Your task to perform on an android device: open wifi settings Image 0: 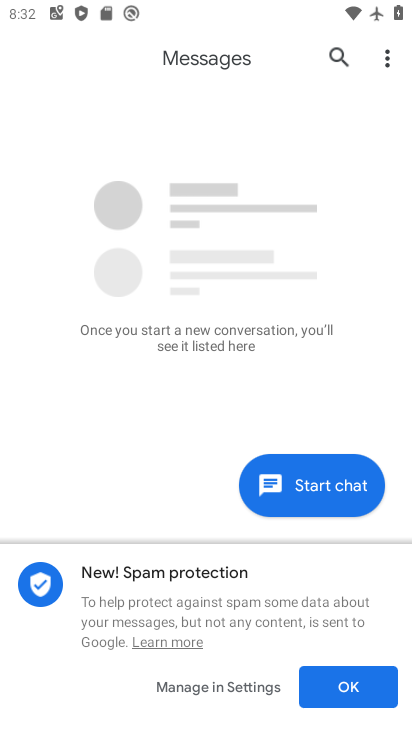
Step 0: press home button
Your task to perform on an android device: open wifi settings Image 1: 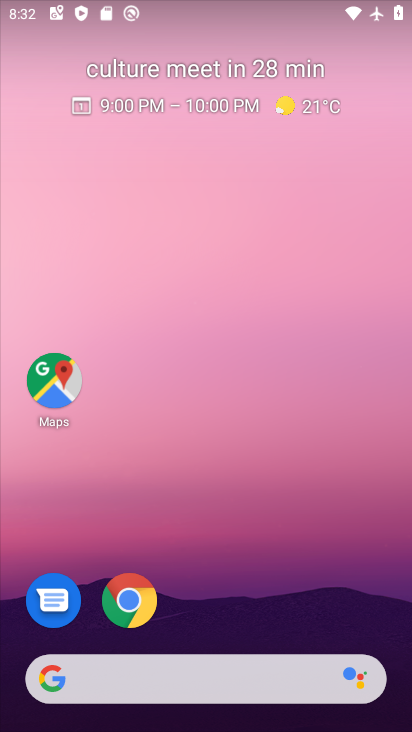
Step 1: drag from (328, 603) to (302, 89)
Your task to perform on an android device: open wifi settings Image 2: 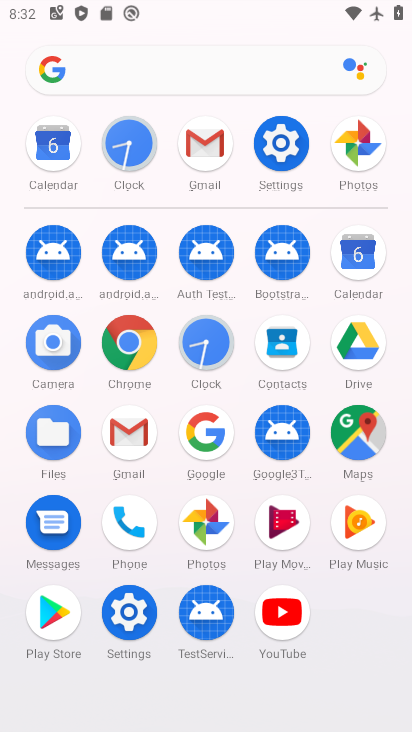
Step 2: click (127, 611)
Your task to perform on an android device: open wifi settings Image 3: 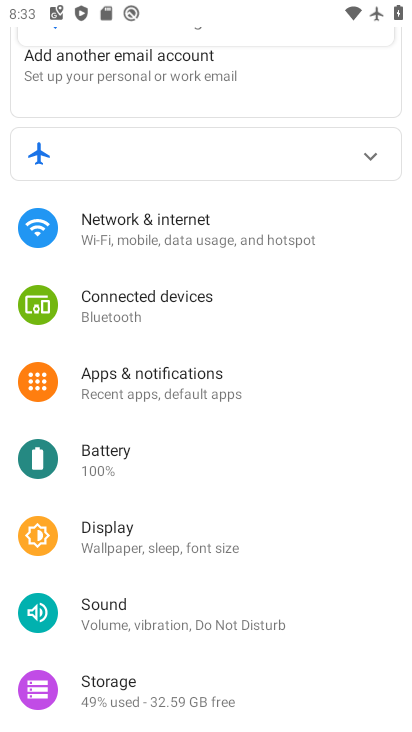
Step 3: click (144, 215)
Your task to perform on an android device: open wifi settings Image 4: 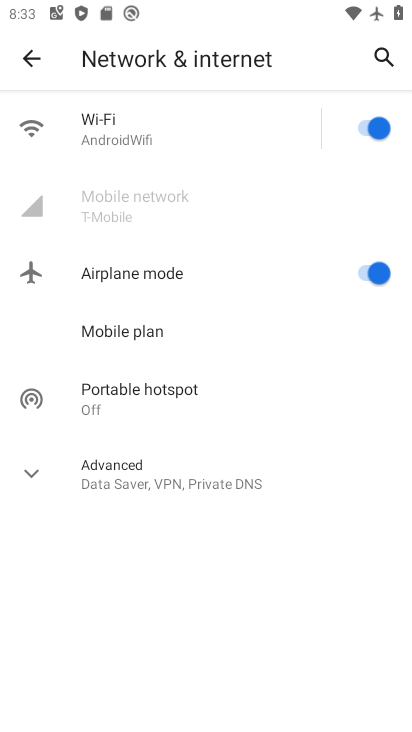
Step 4: click (90, 127)
Your task to perform on an android device: open wifi settings Image 5: 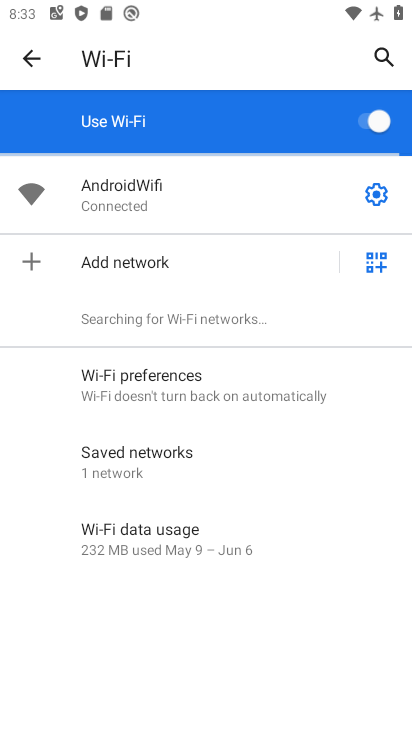
Step 5: click (377, 193)
Your task to perform on an android device: open wifi settings Image 6: 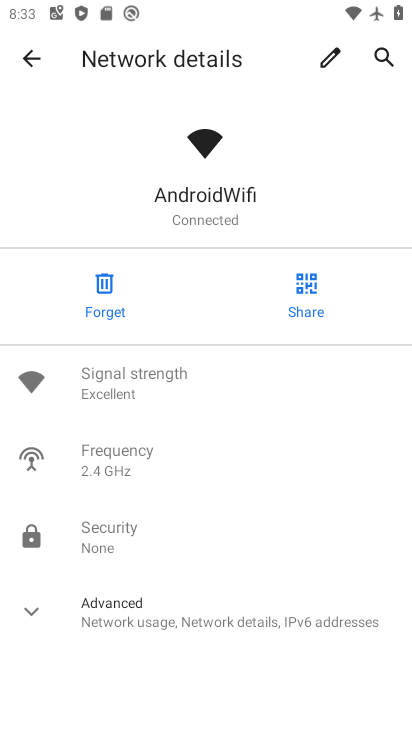
Step 6: click (26, 607)
Your task to perform on an android device: open wifi settings Image 7: 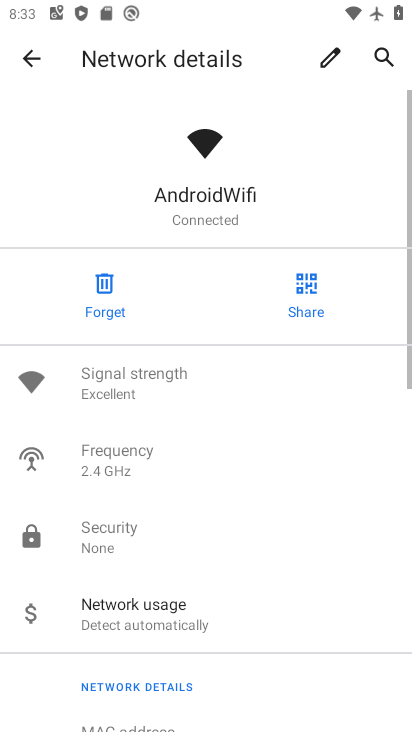
Step 7: task complete